Your task to perform on an android device: Check the news Image 0: 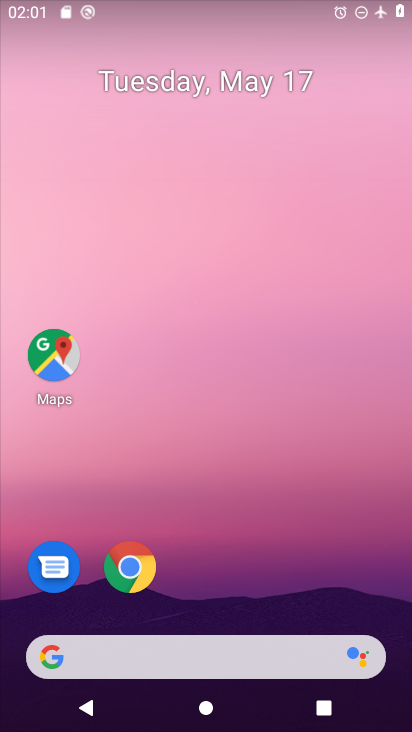
Step 0: drag from (14, 224) to (329, 400)
Your task to perform on an android device: Check the news Image 1: 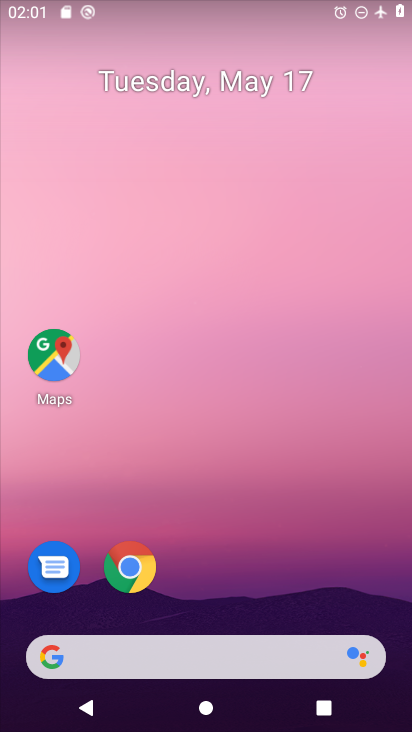
Step 1: task complete